Your task to perform on an android device: Open wifi settings Image 0: 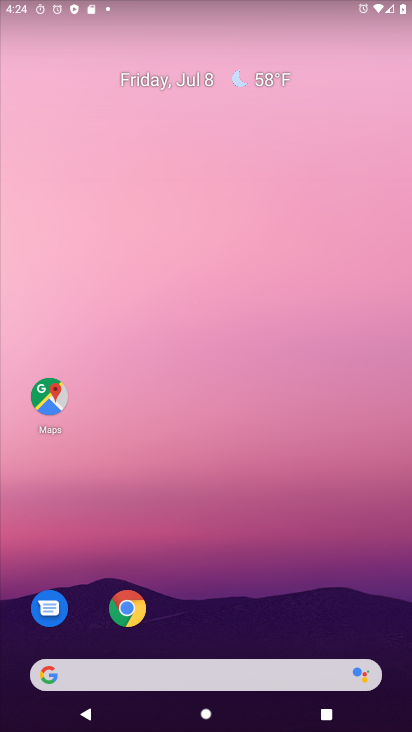
Step 0: drag from (236, 571) to (408, 50)
Your task to perform on an android device: Open wifi settings Image 1: 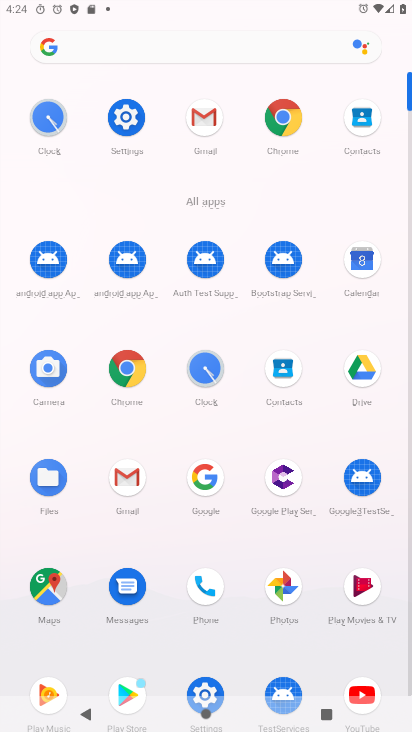
Step 1: click (123, 128)
Your task to perform on an android device: Open wifi settings Image 2: 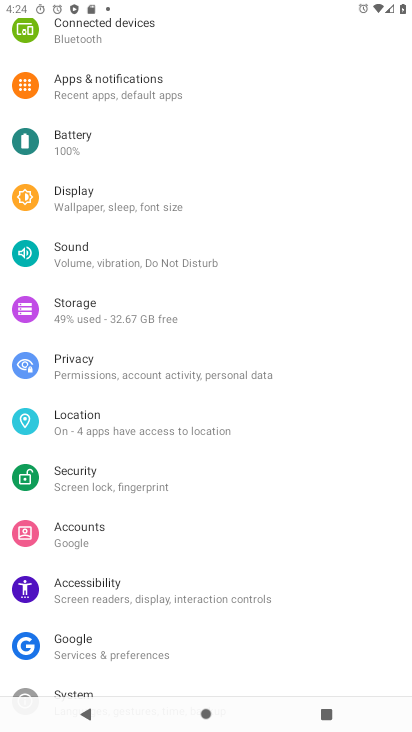
Step 2: drag from (112, 184) to (165, 713)
Your task to perform on an android device: Open wifi settings Image 3: 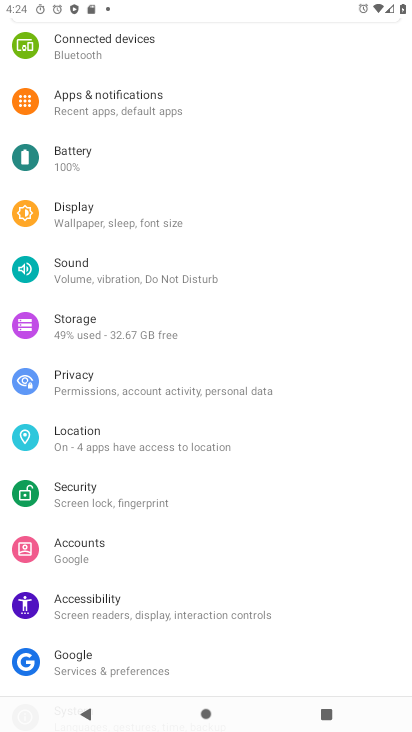
Step 3: drag from (281, 287) to (308, 593)
Your task to perform on an android device: Open wifi settings Image 4: 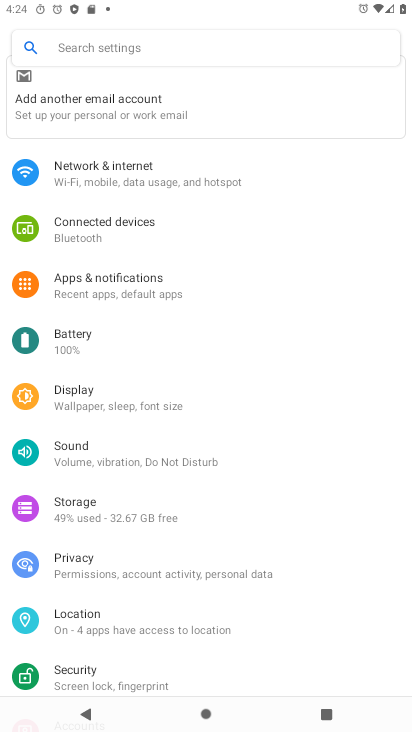
Step 4: click (268, 164)
Your task to perform on an android device: Open wifi settings Image 5: 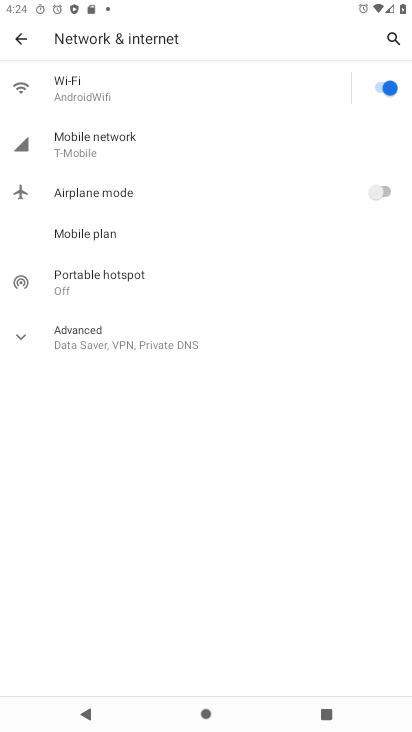
Step 5: click (59, 93)
Your task to perform on an android device: Open wifi settings Image 6: 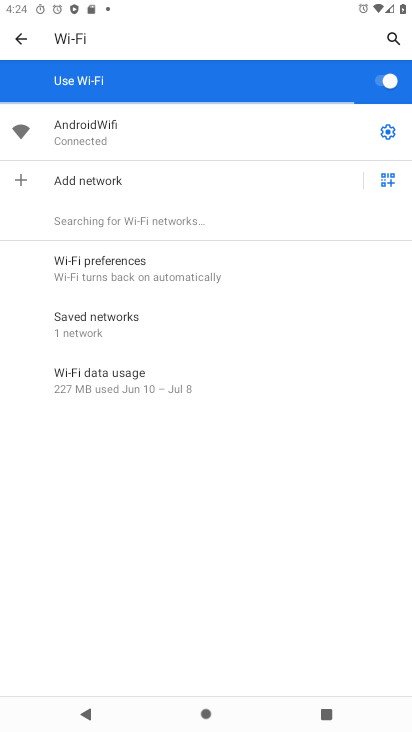
Step 6: task complete